Your task to perform on an android device: Open Chrome and go to settings Image 0: 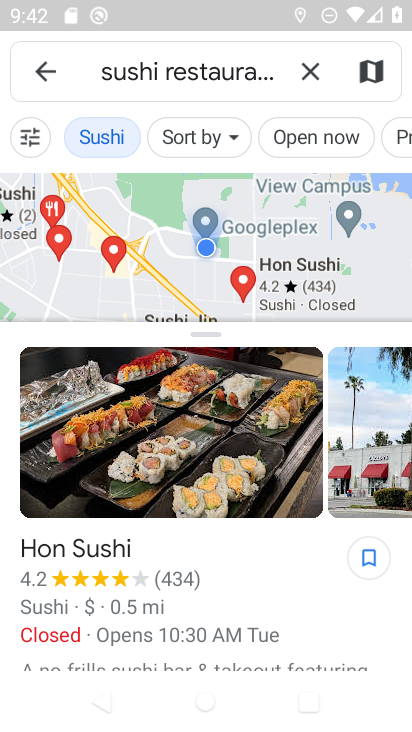
Step 0: press home button
Your task to perform on an android device: Open Chrome and go to settings Image 1: 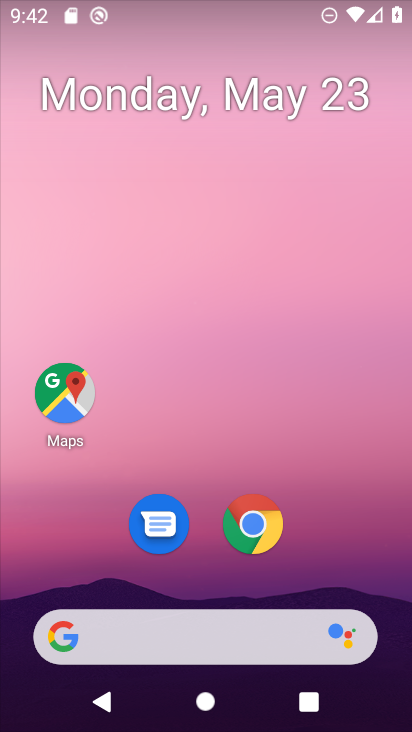
Step 1: click (260, 509)
Your task to perform on an android device: Open Chrome and go to settings Image 2: 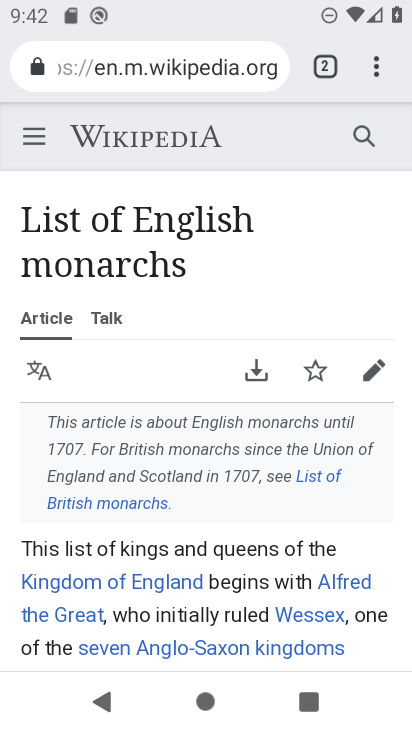
Step 2: click (374, 69)
Your task to perform on an android device: Open Chrome and go to settings Image 3: 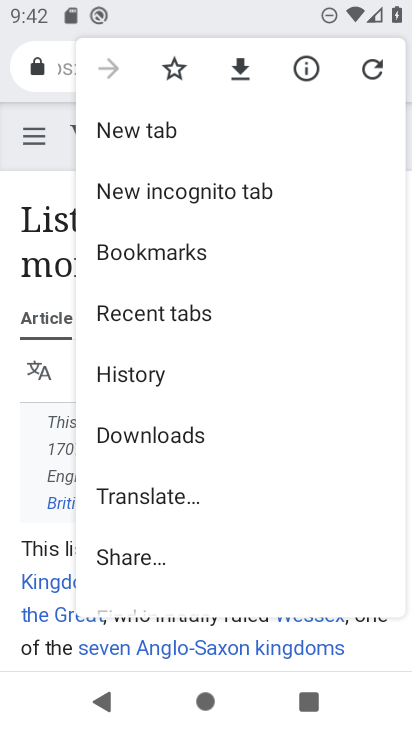
Step 3: drag from (229, 439) to (260, 155)
Your task to perform on an android device: Open Chrome and go to settings Image 4: 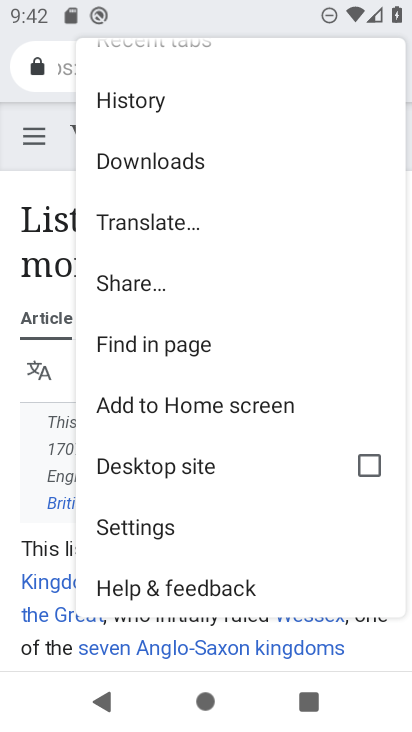
Step 4: click (170, 519)
Your task to perform on an android device: Open Chrome and go to settings Image 5: 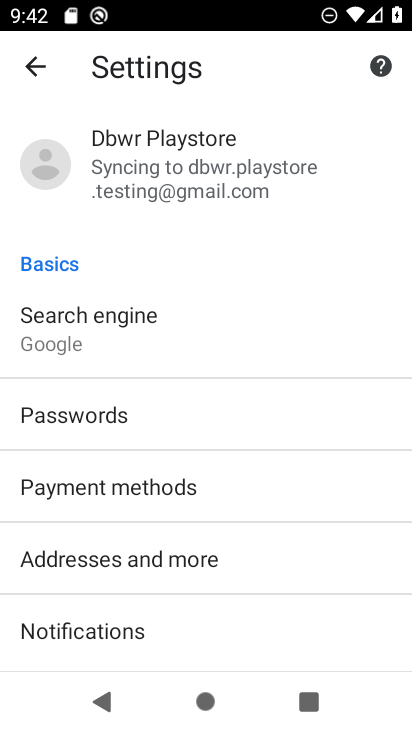
Step 5: task complete